Your task to perform on an android device: Open sound settings Image 0: 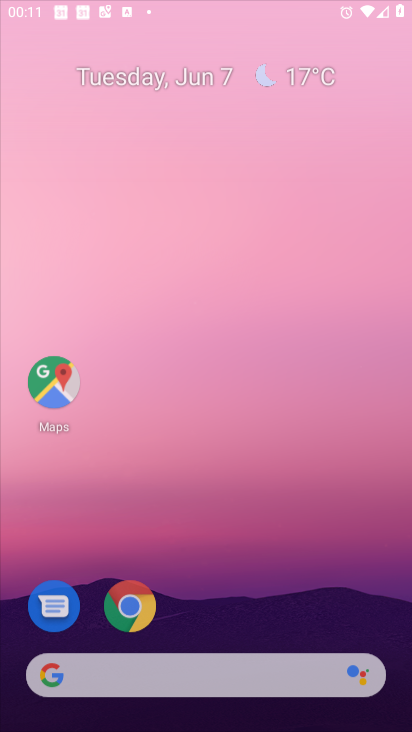
Step 0: drag from (342, 155) to (337, 84)
Your task to perform on an android device: Open sound settings Image 1: 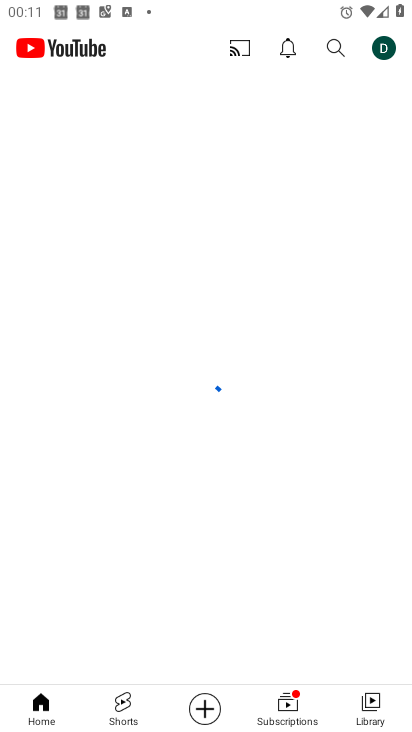
Step 1: press home button
Your task to perform on an android device: Open sound settings Image 2: 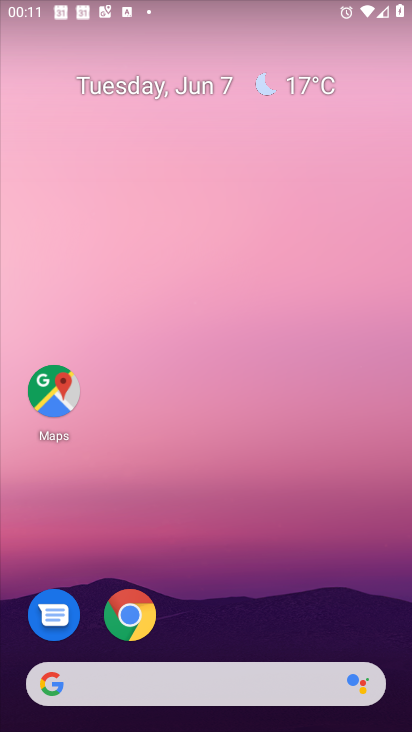
Step 2: drag from (404, 681) to (344, 29)
Your task to perform on an android device: Open sound settings Image 3: 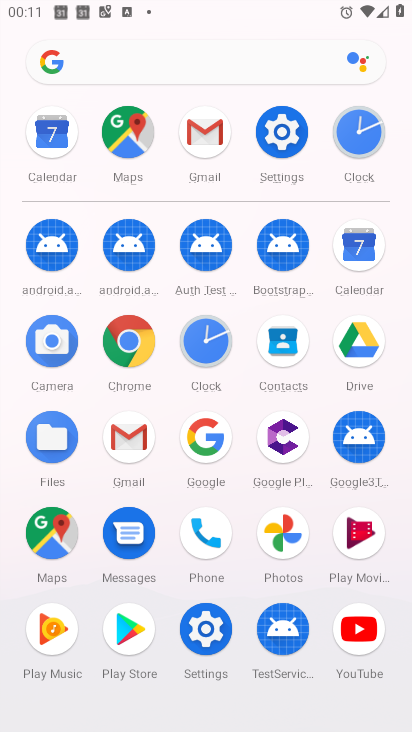
Step 3: click (288, 135)
Your task to perform on an android device: Open sound settings Image 4: 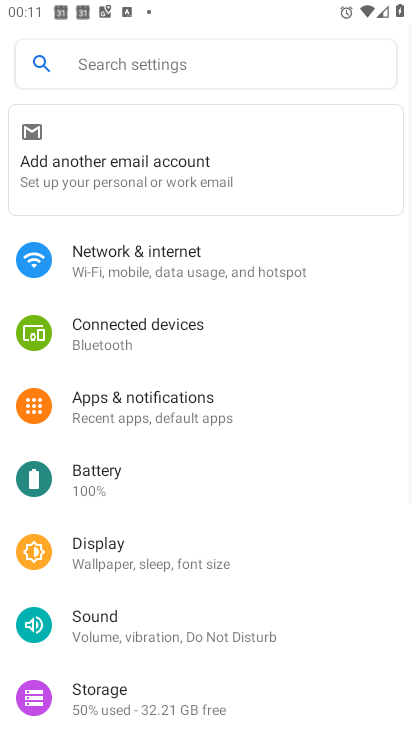
Step 4: click (115, 506)
Your task to perform on an android device: Open sound settings Image 5: 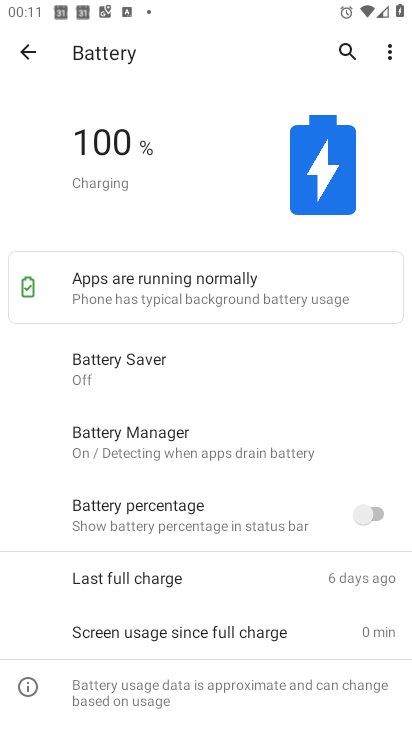
Step 5: click (30, 53)
Your task to perform on an android device: Open sound settings Image 6: 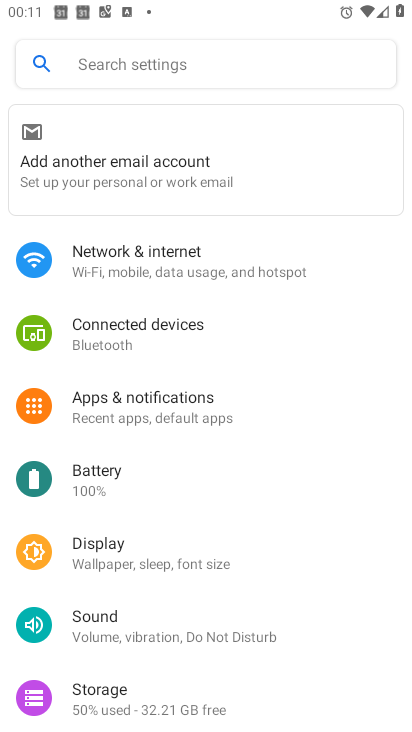
Step 6: click (98, 635)
Your task to perform on an android device: Open sound settings Image 7: 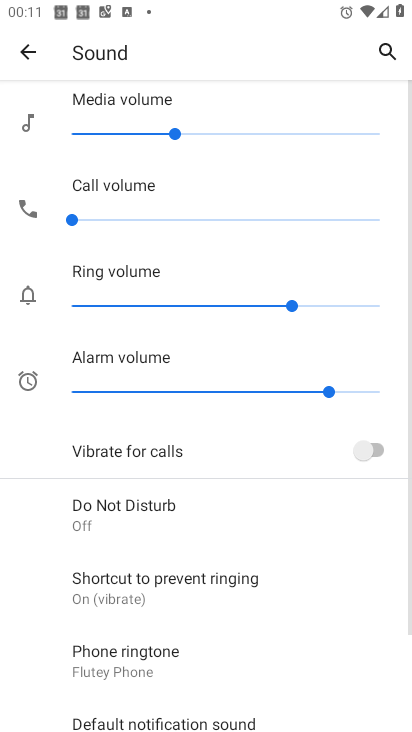
Step 7: task complete